Your task to perform on an android device: open app "Airtel Thanks" (install if not already installed) Image 0: 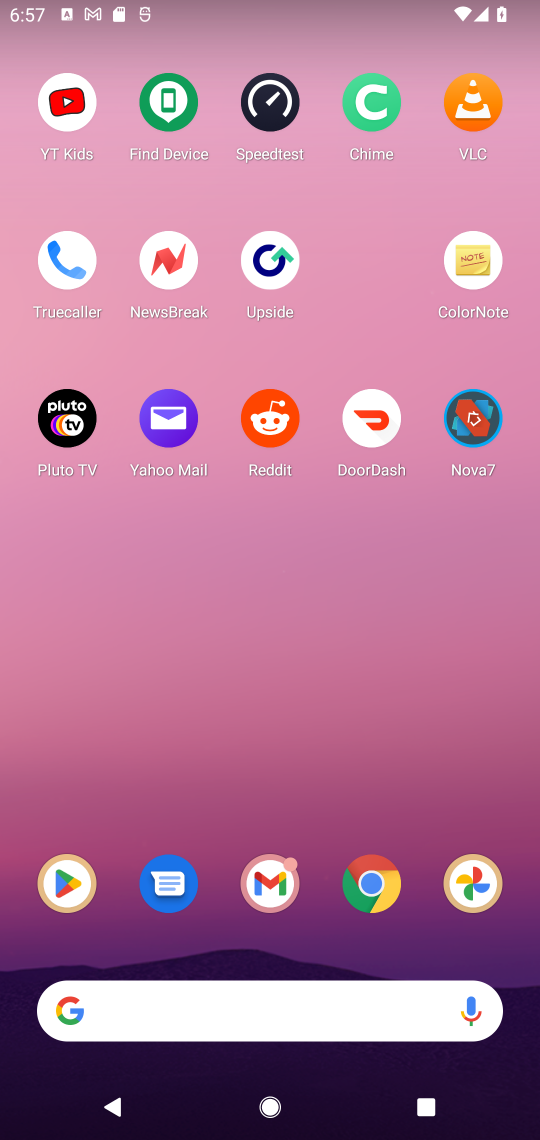
Step 0: click (79, 884)
Your task to perform on an android device: open app "Airtel Thanks" (install if not already installed) Image 1: 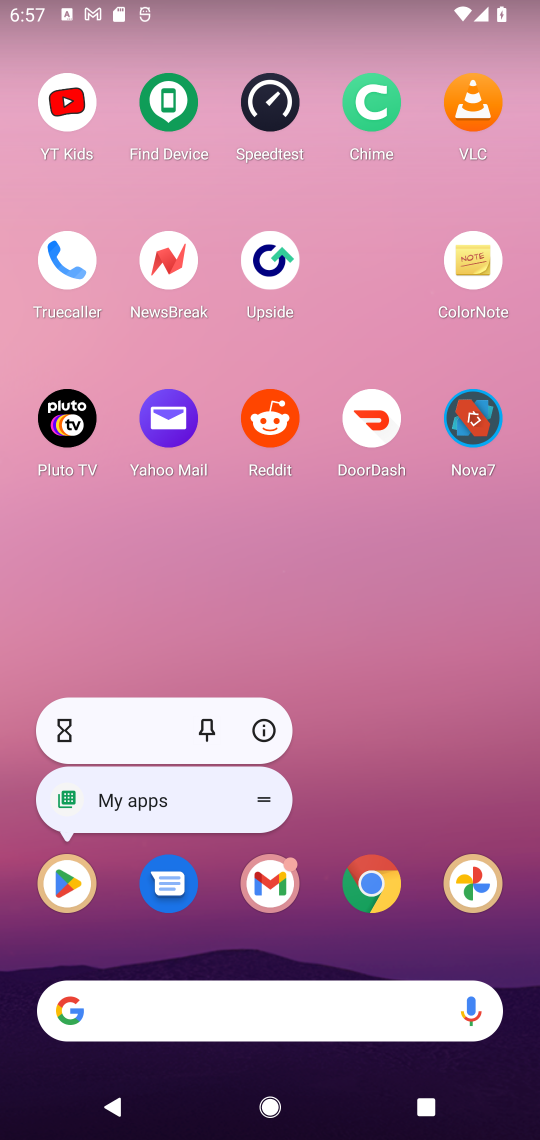
Step 1: click (71, 882)
Your task to perform on an android device: open app "Airtel Thanks" (install if not already installed) Image 2: 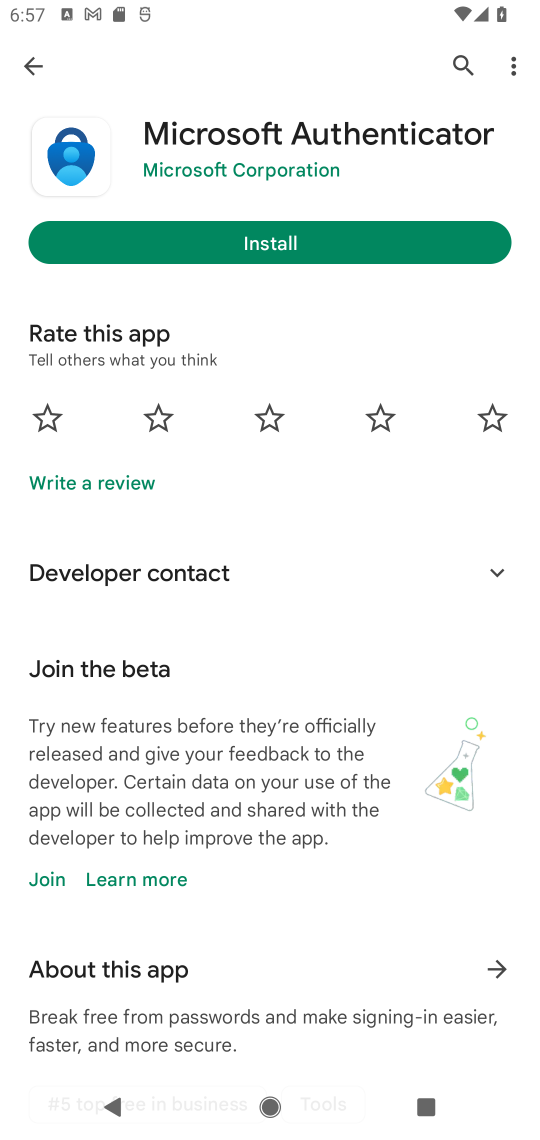
Step 2: click (457, 54)
Your task to perform on an android device: open app "Airtel Thanks" (install if not already installed) Image 3: 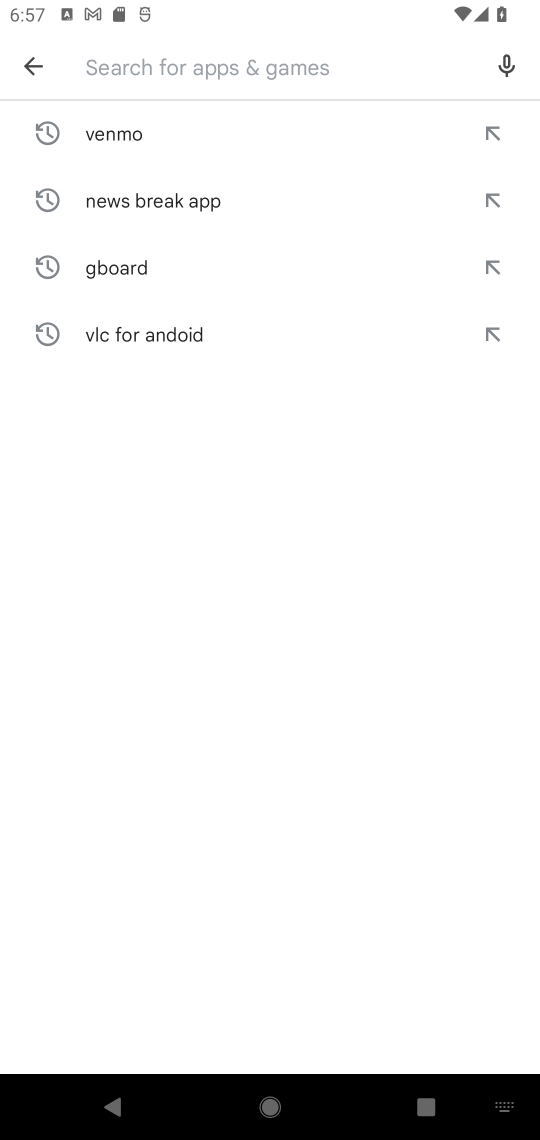
Step 3: type "airtel thanks"
Your task to perform on an android device: open app "Airtel Thanks" (install if not already installed) Image 4: 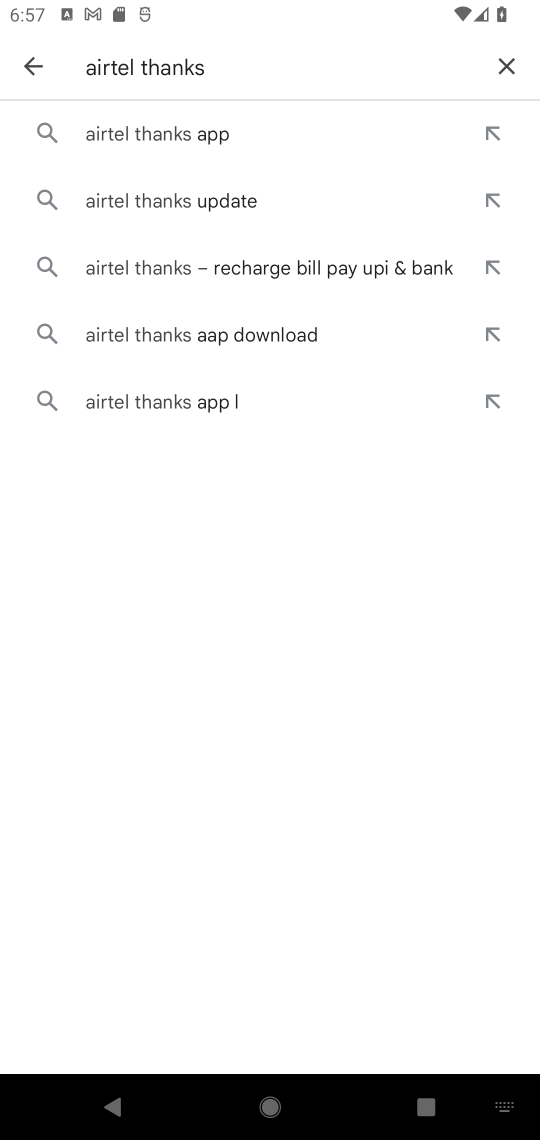
Step 4: click (183, 132)
Your task to perform on an android device: open app "Airtel Thanks" (install if not already installed) Image 5: 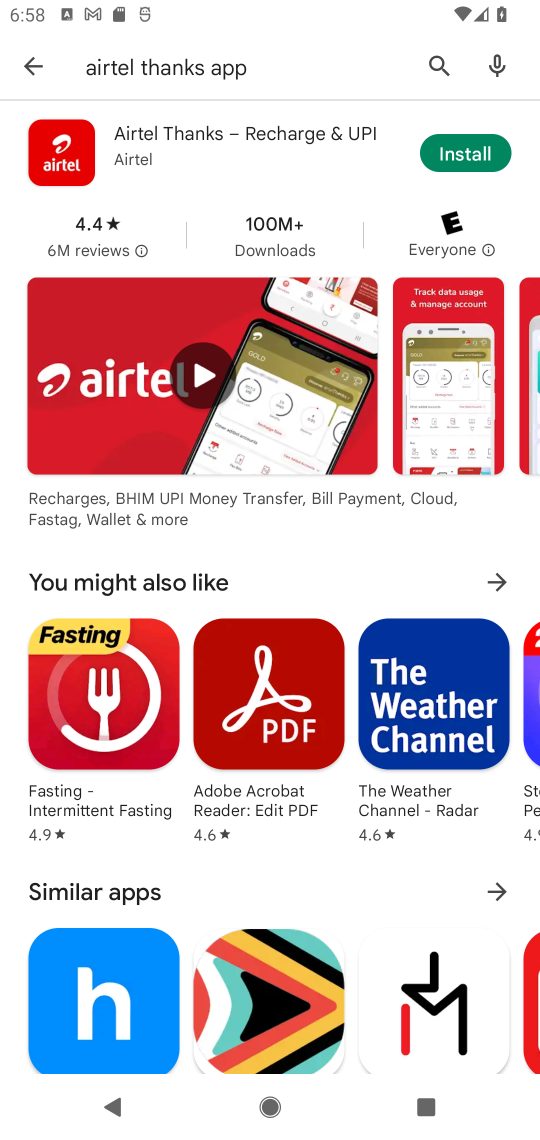
Step 5: click (454, 149)
Your task to perform on an android device: open app "Airtel Thanks" (install if not already installed) Image 6: 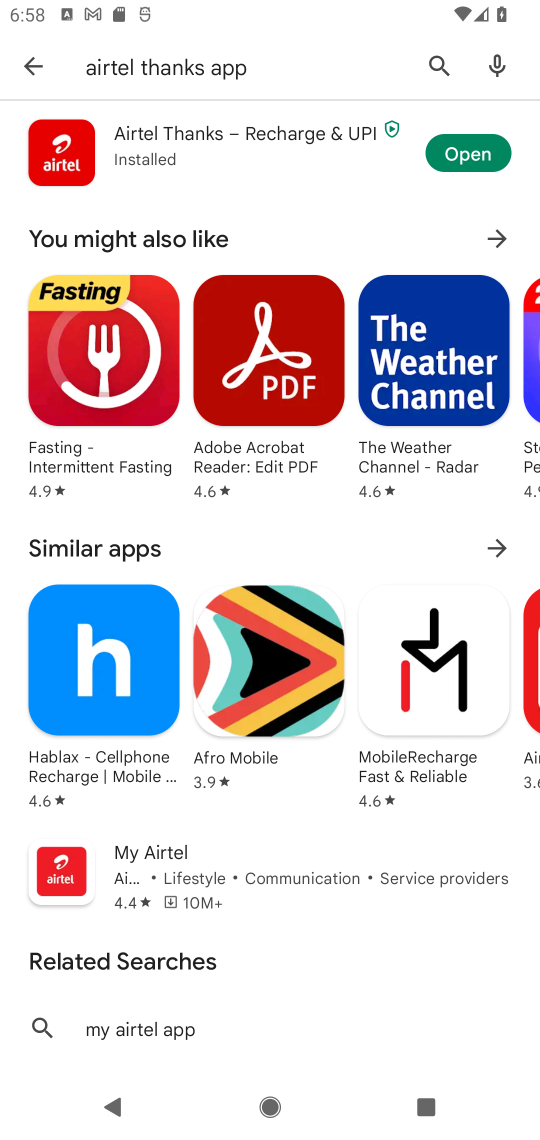
Step 6: click (472, 160)
Your task to perform on an android device: open app "Airtel Thanks" (install if not already installed) Image 7: 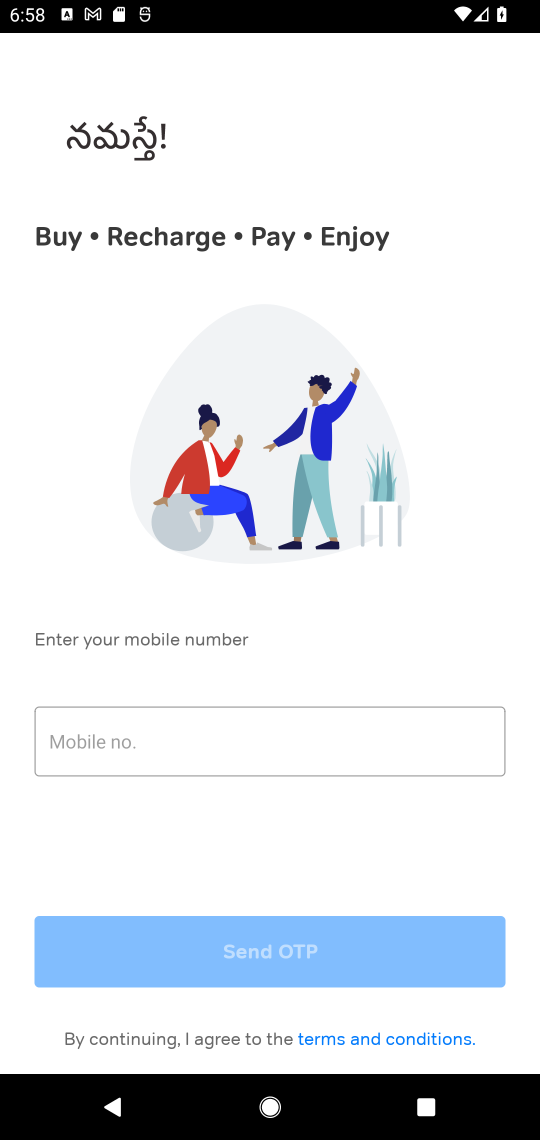
Step 7: task complete